Your task to perform on an android device: Go to Google maps Image 0: 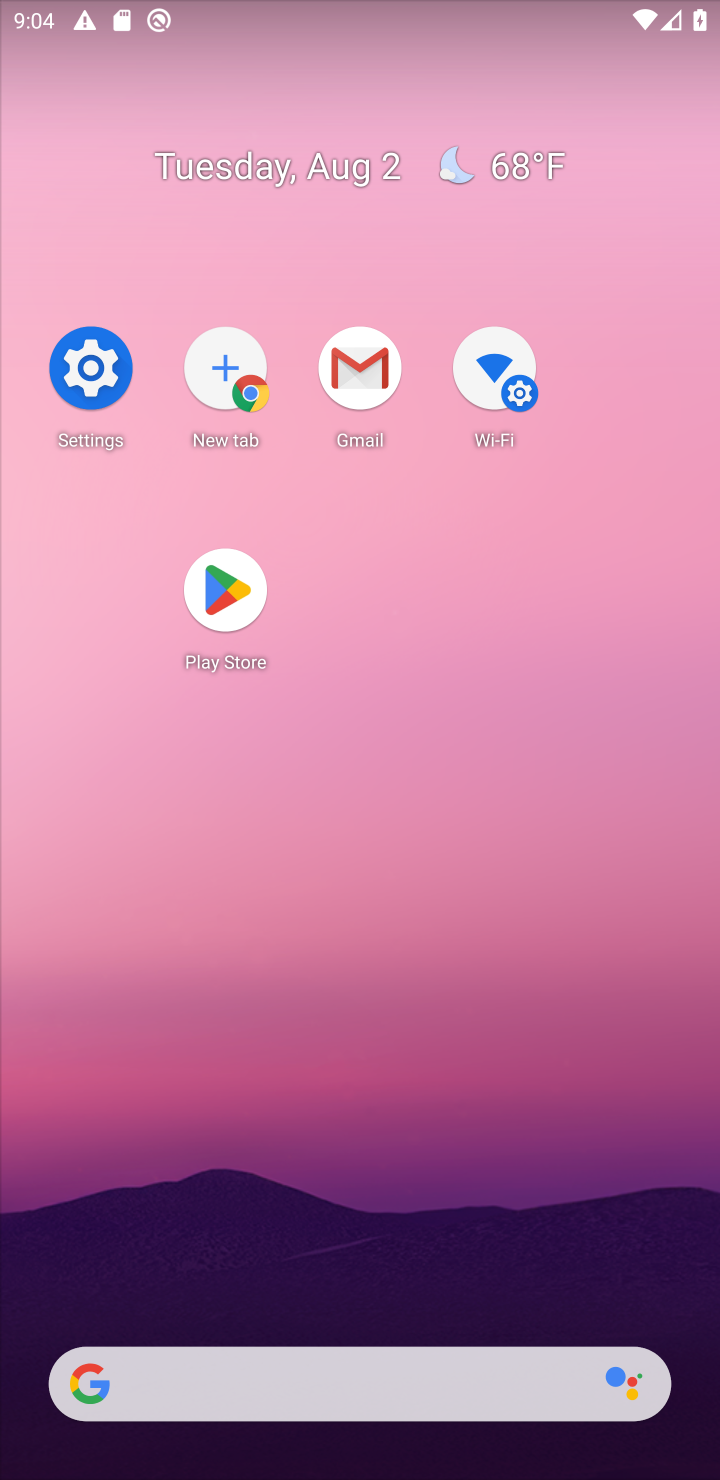
Step 0: drag from (511, 1091) to (477, 844)
Your task to perform on an android device: Go to Google maps Image 1: 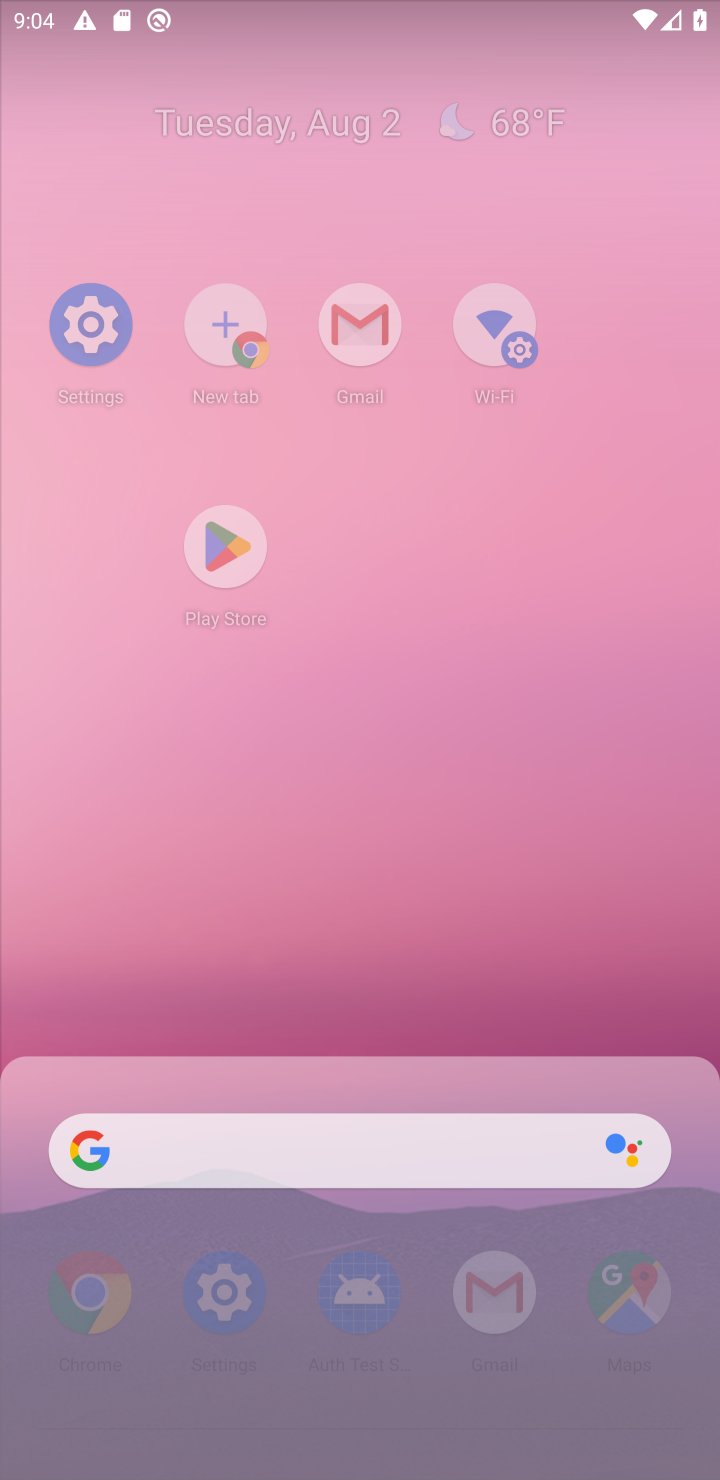
Step 1: click (390, 658)
Your task to perform on an android device: Go to Google maps Image 2: 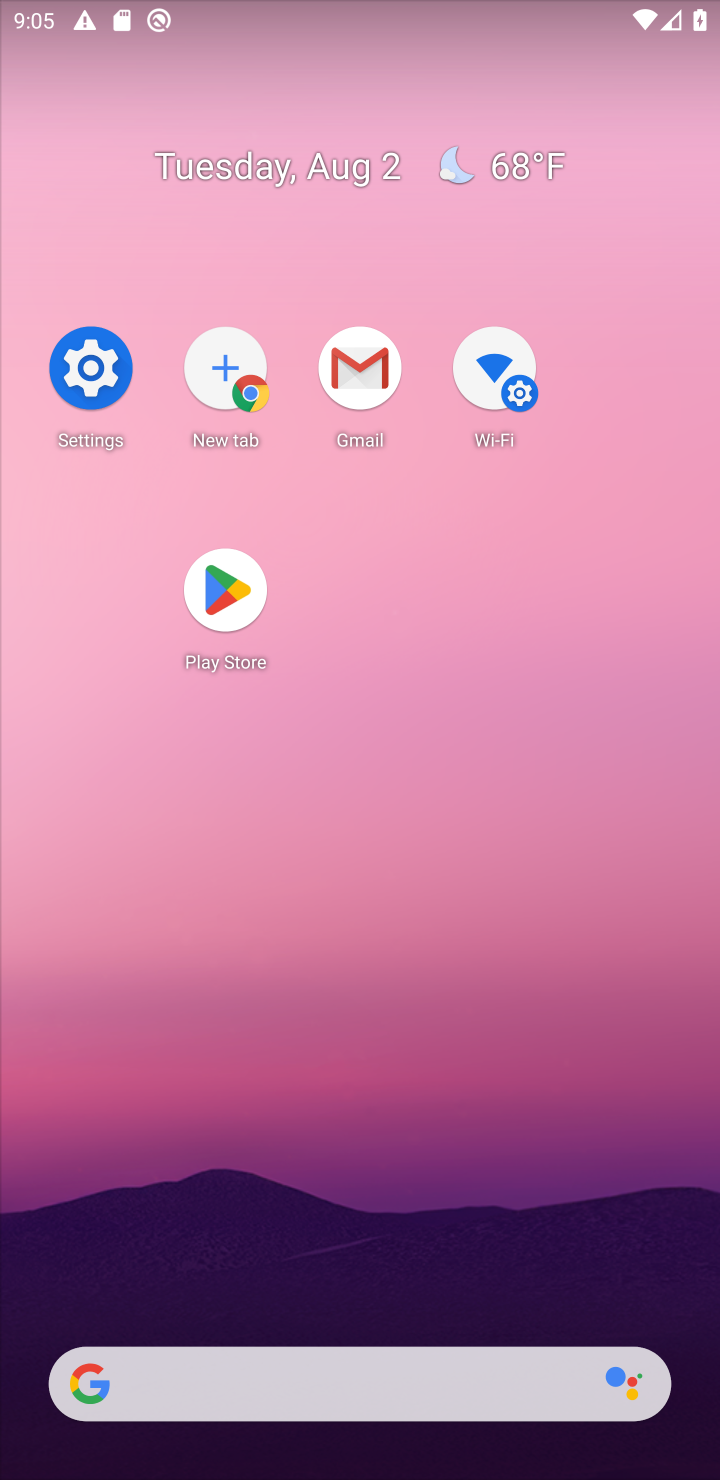
Step 2: drag from (342, 1216) to (416, 548)
Your task to perform on an android device: Go to Google maps Image 3: 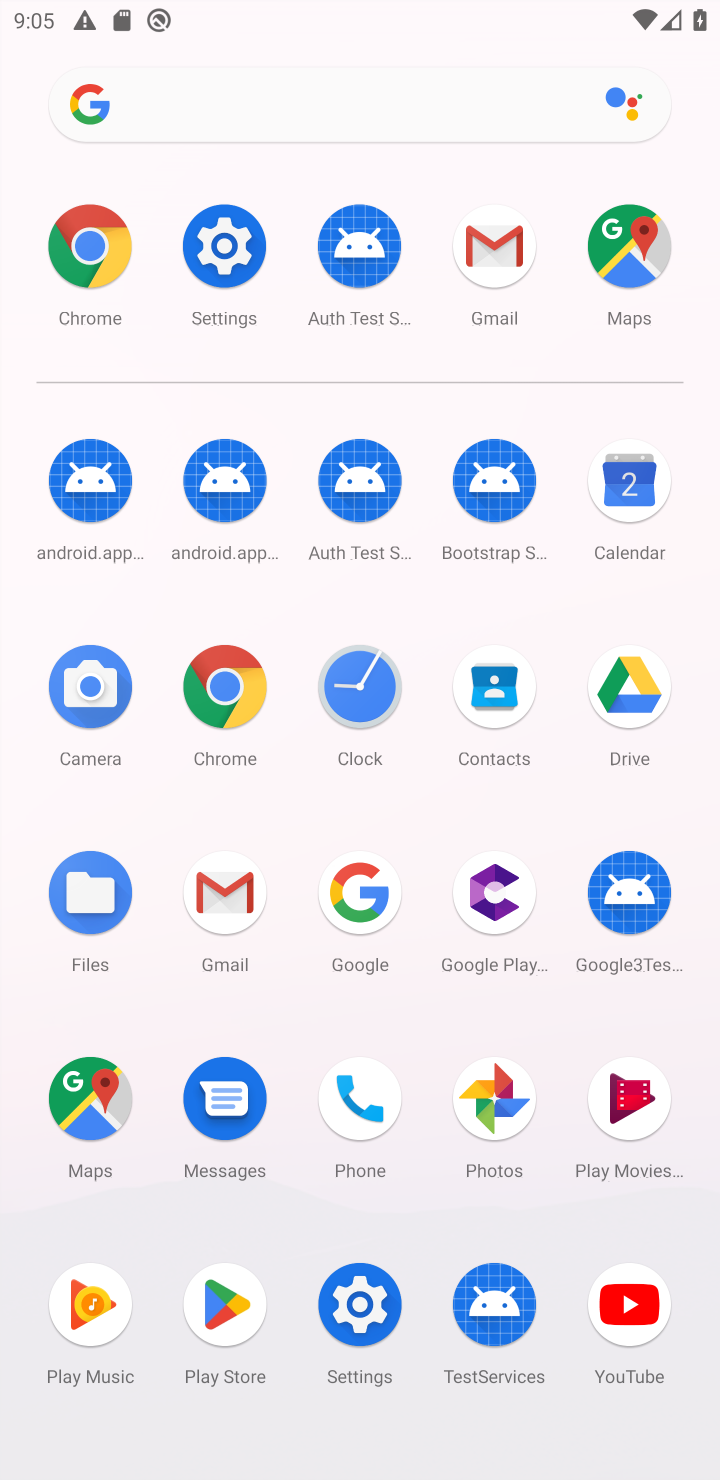
Step 3: click (75, 1111)
Your task to perform on an android device: Go to Google maps Image 4: 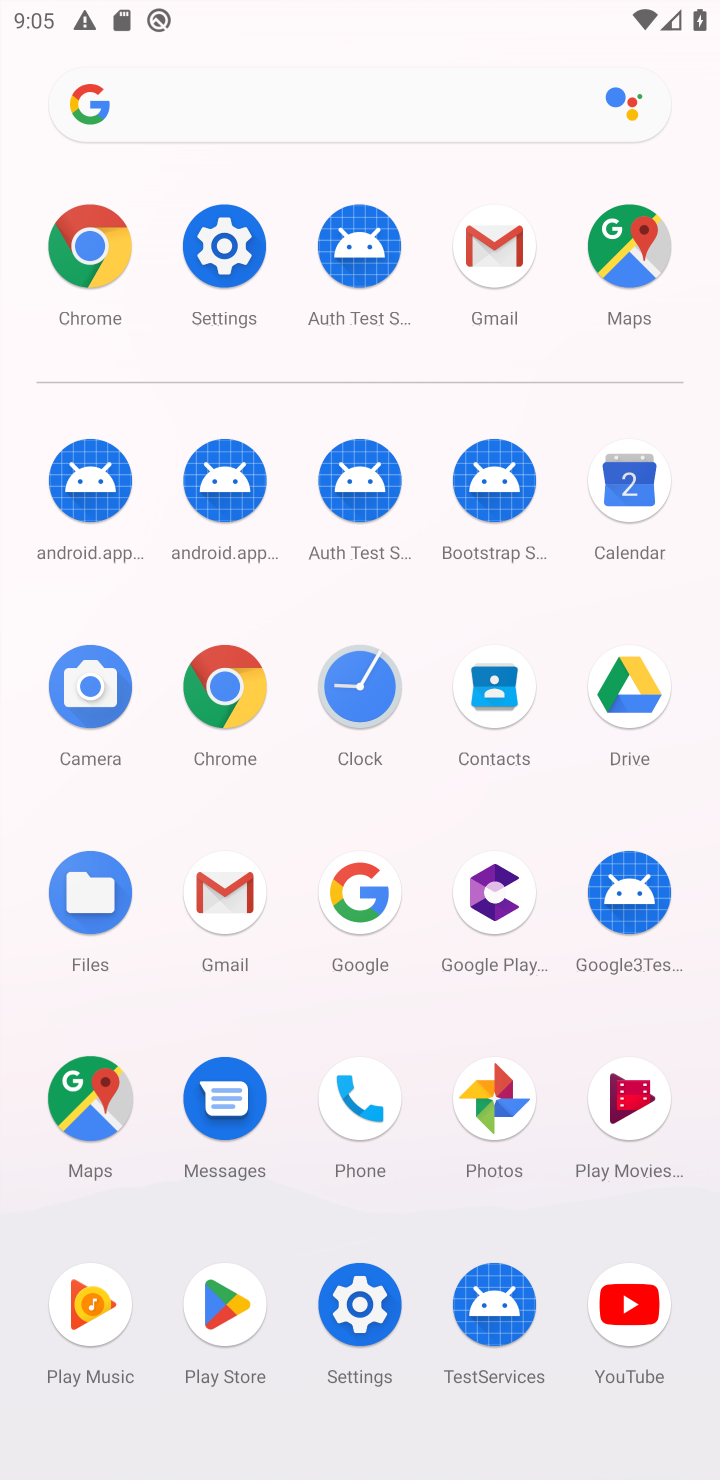
Step 4: click (75, 1111)
Your task to perform on an android device: Go to Google maps Image 5: 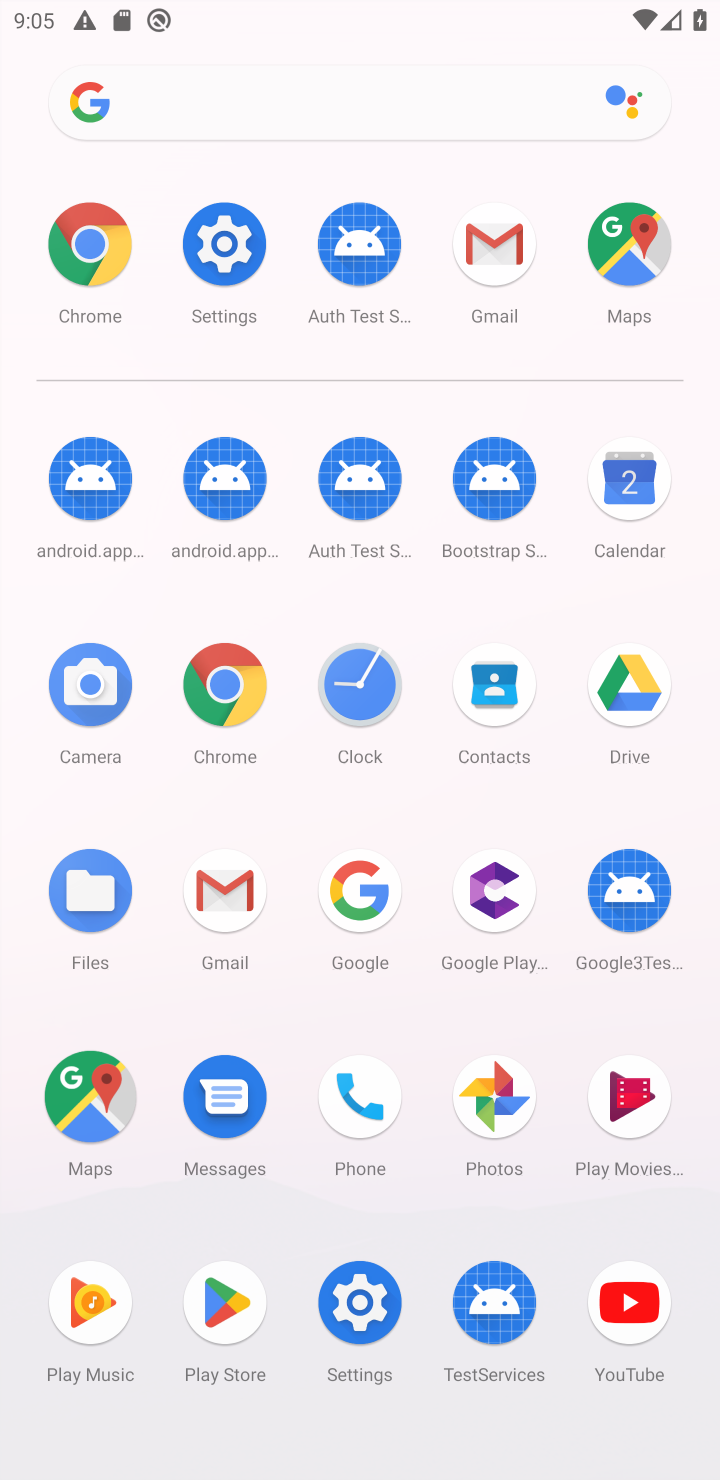
Step 5: click (77, 1109)
Your task to perform on an android device: Go to Google maps Image 6: 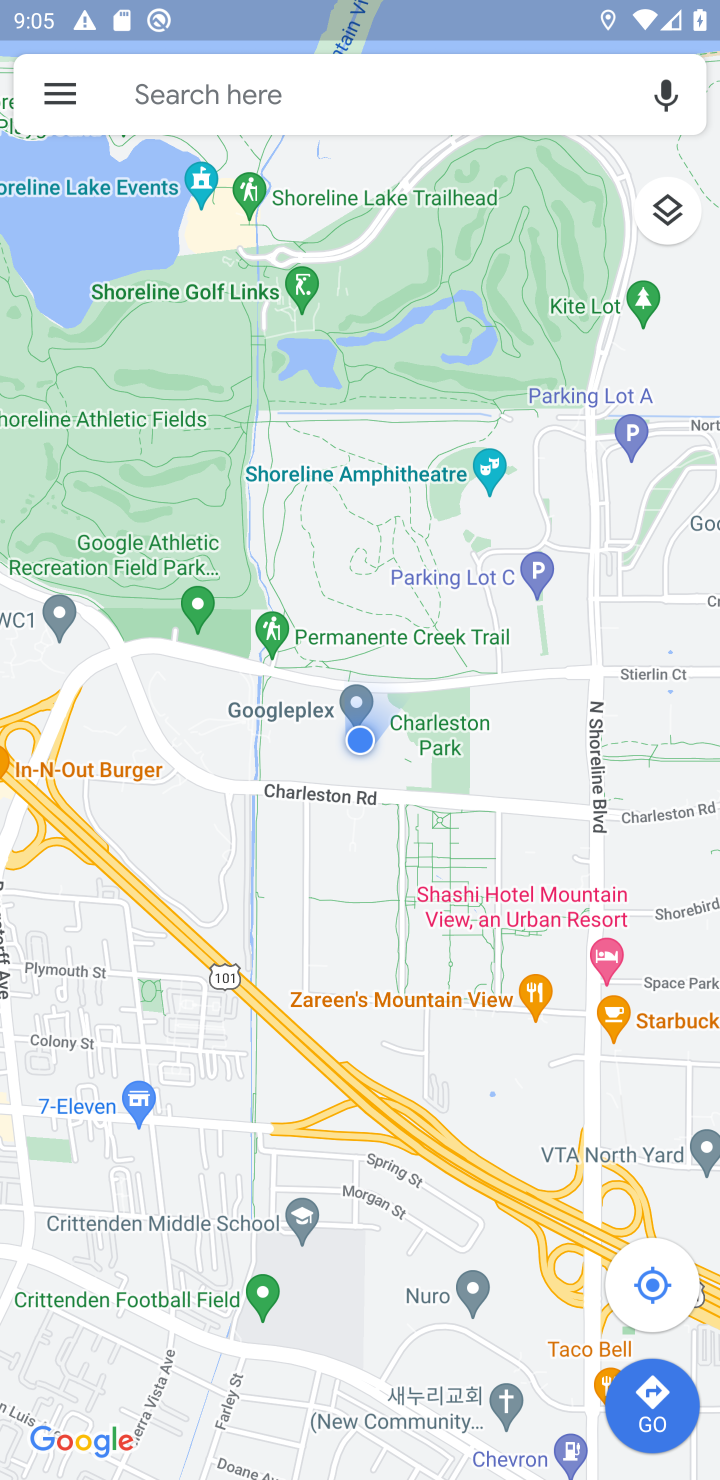
Step 6: task complete